Your task to perform on an android device: see tabs open on other devices in the chrome app Image 0: 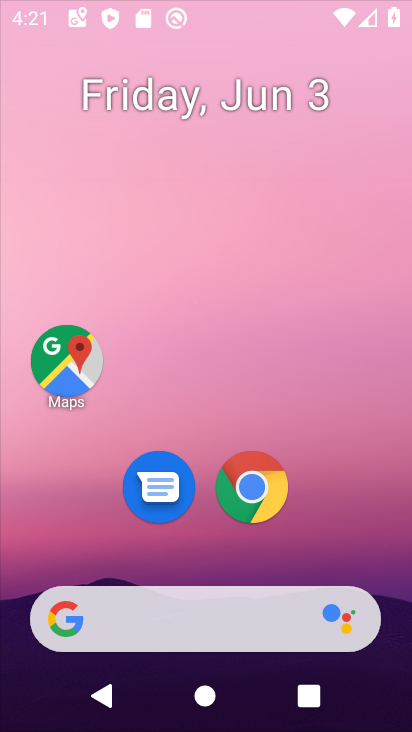
Step 0: drag from (238, 556) to (148, 10)
Your task to perform on an android device: see tabs open on other devices in the chrome app Image 1: 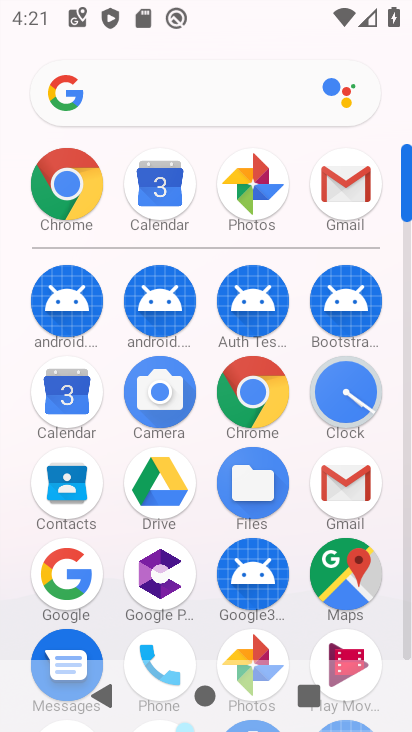
Step 1: click (249, 375)
Your task to perform on an android device: see tabs open on other devices in the chrome app Image 2: 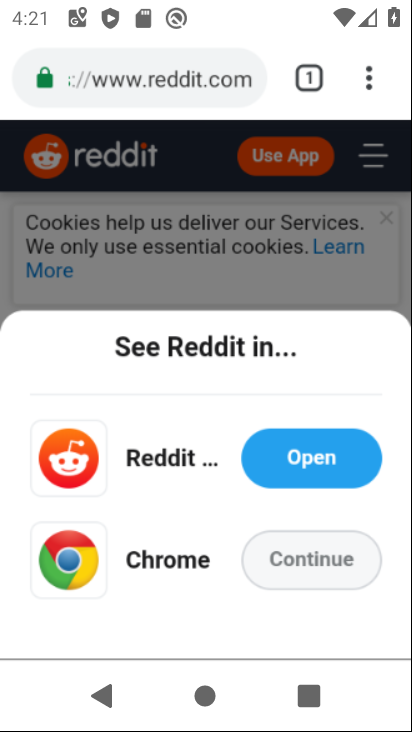
Step 2: click (372, 90)
Your task to perform on an android device: see tabs open on other devices in the chrome app Image 3: 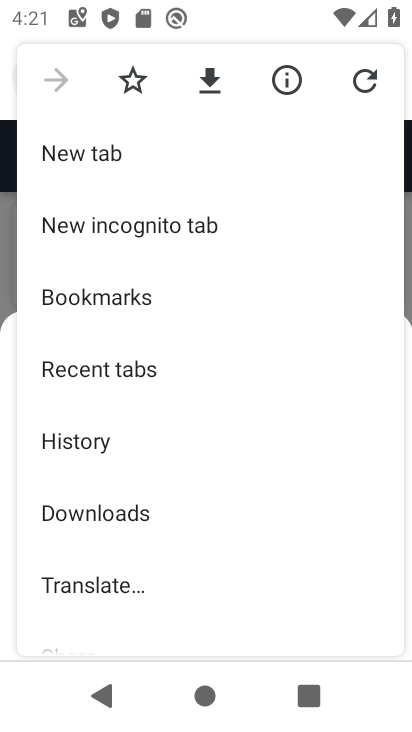
Step 3: click (120, 360)
Your task to perform on an android device: see tabs open on other devices in the chrome app Image 4: 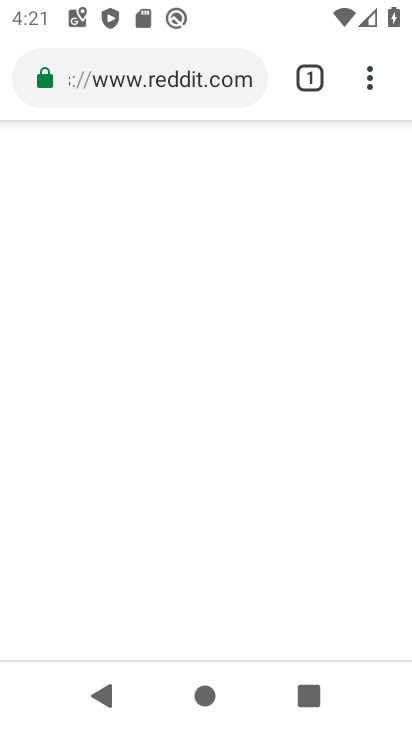
Step 4: task complete